Your task to perform on an android device: What's the weather going to be this weekend? Image 0: 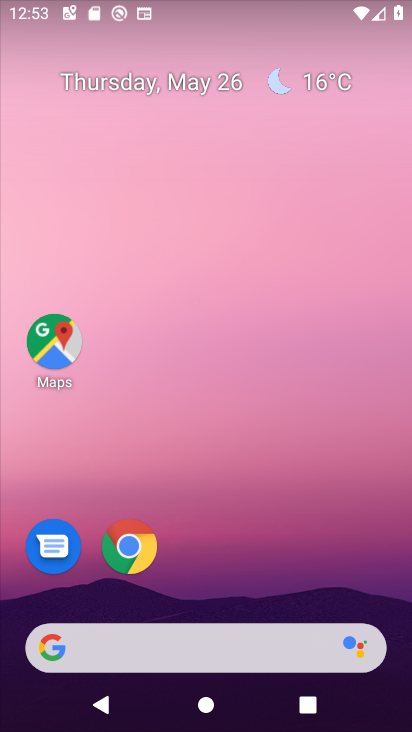
Step 0: click (132, 552)
Your task to perform on an android device: What's the weather going to be this weekend? Image 1: 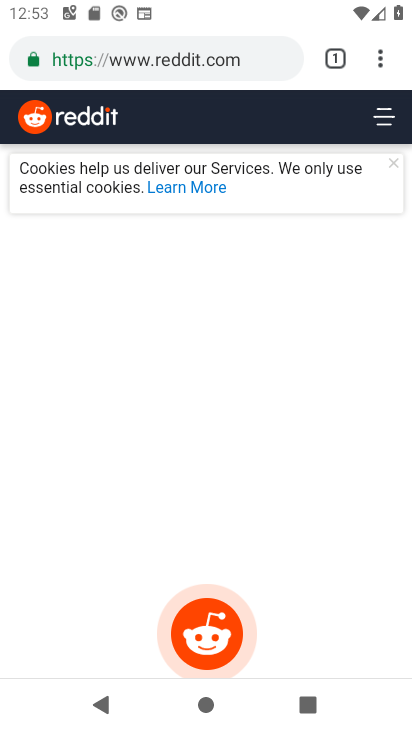
Step 1: click (98, 69)
Your task to perform on an android device: What's the weather going to be this weekend? Image 2: 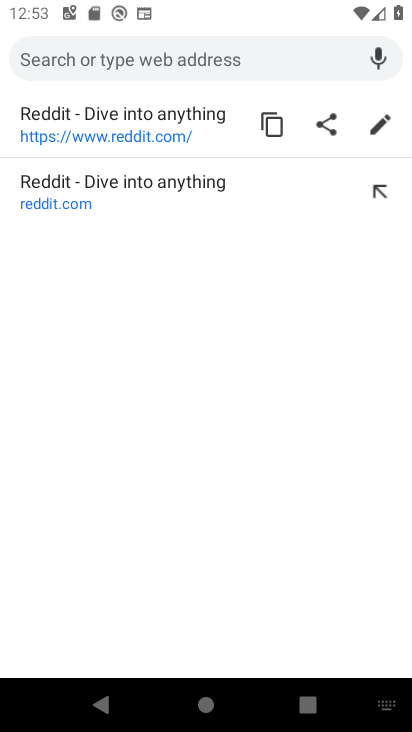
Step 2: type "What's the weather going to be this weekend?"
Your task to perform on an android device: What's the weather going to be this weekend? Image 3: 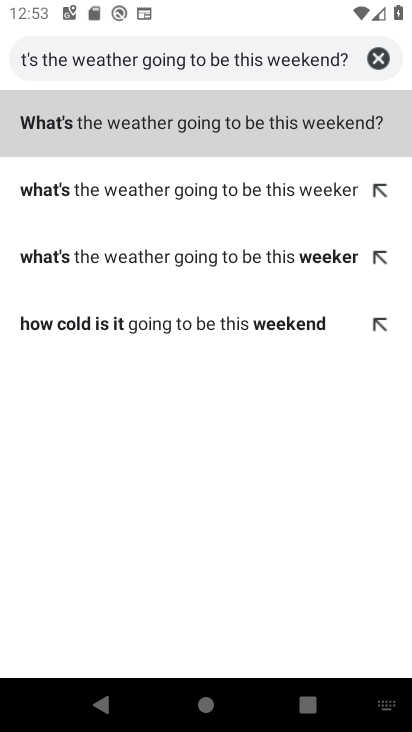
Step 3: click (247, 137)
Your task to perform on an android device: What's the weather going to be this weekend? Image 4: 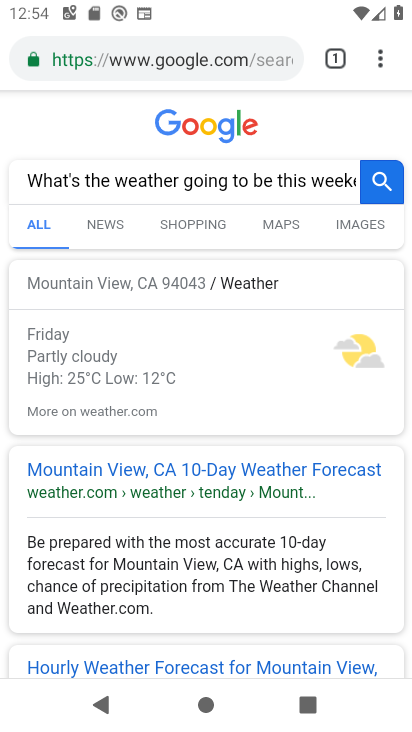
Step 4: task complete